Your task to perform on an android device: turn pop-ups on in chrome Image 0: 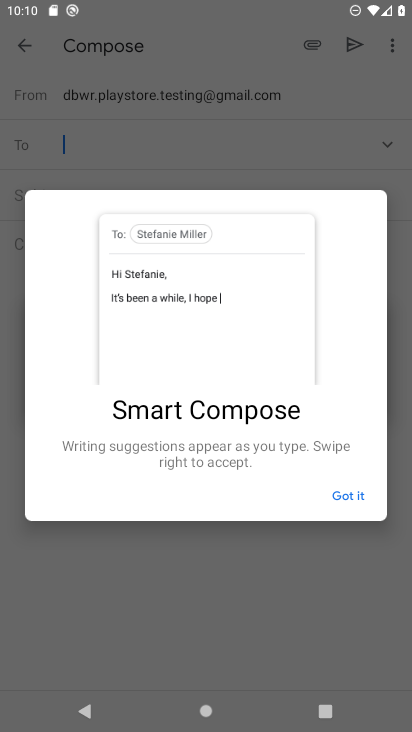
Step 0: press home button
Your task to perform on an android device: turn pop-ups on in chrome Image 1: 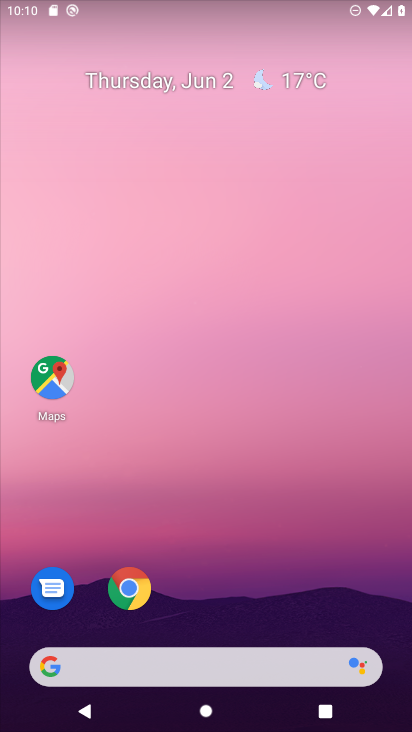
Step 1: drag from (213, 648) to (219, 298)
Your task to perform on an android device: turn pop-ups on in chrome Image 2: 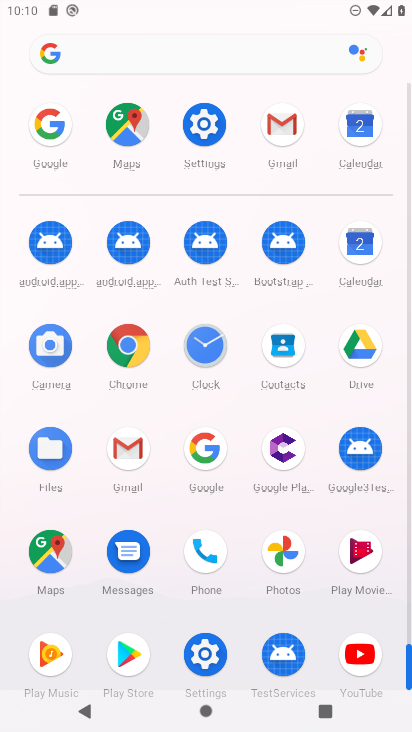
Step 2: click (128, 356)
Your task to perform on an android device: turn pop-ups on in chrome Image 3: 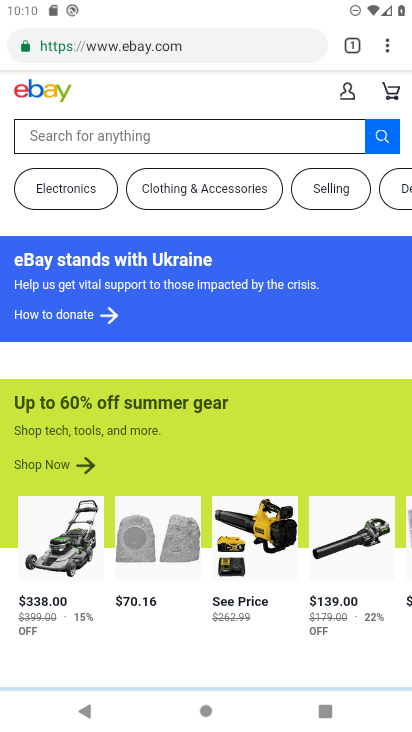
Step 3: click (381, 45)
Your task to perform on an android device: turn pop-ups on in chrome Image 4: 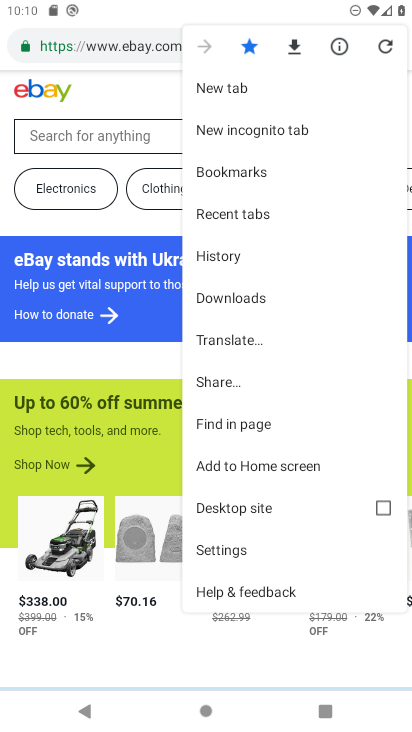
Step 4: drag from (287, 431) to (298, 355)
Your task to perform on an android device: turn pop-ups on in chrome Image 5: 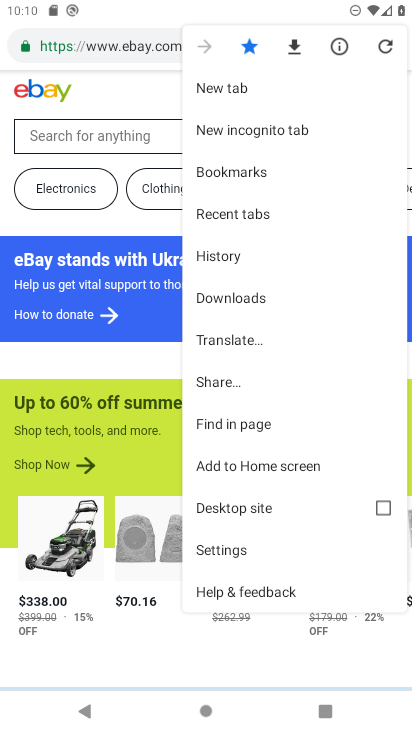
Step 5: click (257, 549)
Your task to perform on an android device: turn pop-ups on in chrome Image 6: 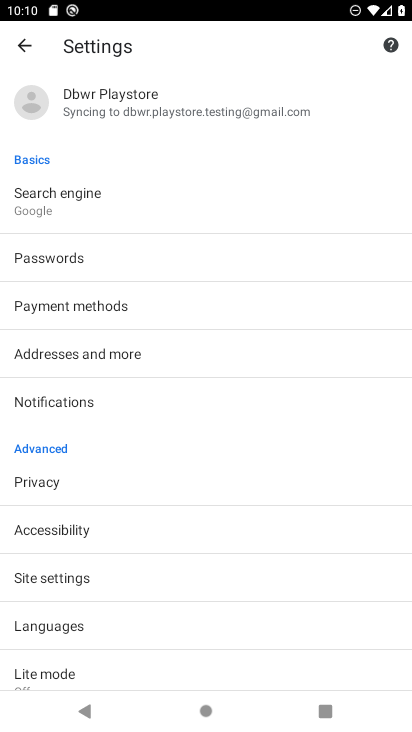
Step 6: drag from (154, 506) to (156, 455)
Your task to perform on an android device: turn pop-ups on in chrome Image 7: 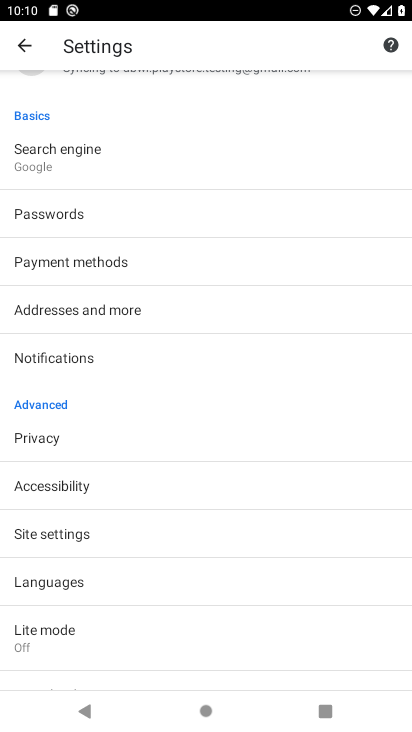
Step 7: click (109, 535)
Your task to perform on an android device: turn pop-ups on in chrome Image 8: 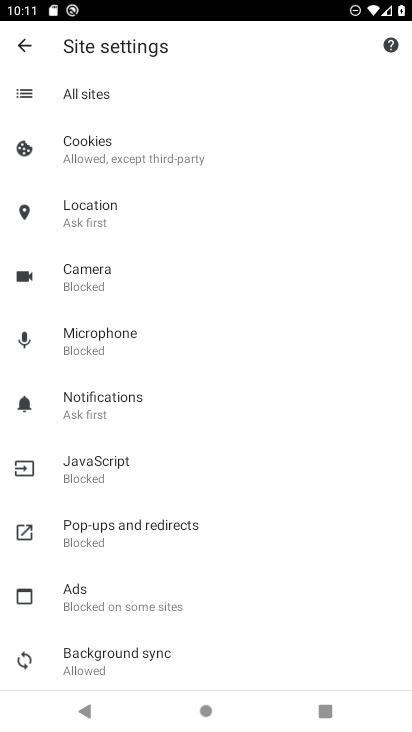
Step 8: click (150, 519)
Your task to perform on an android device: turn pop-ups on in chrome Image 9: 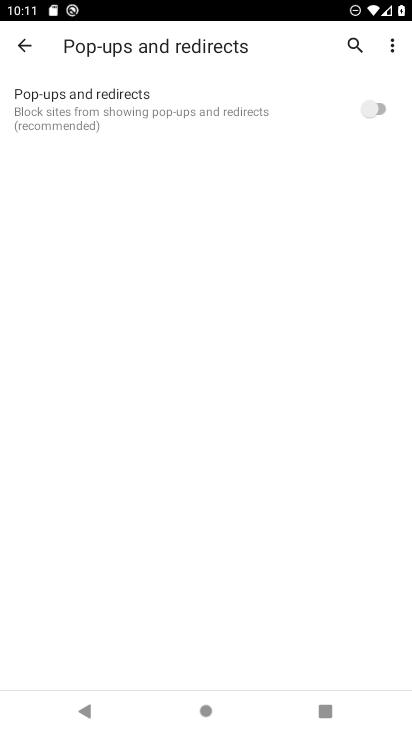
Step 9: click (386, 111)
Your task to perform on an android device: turn pop-ups on in chrome Image 10: 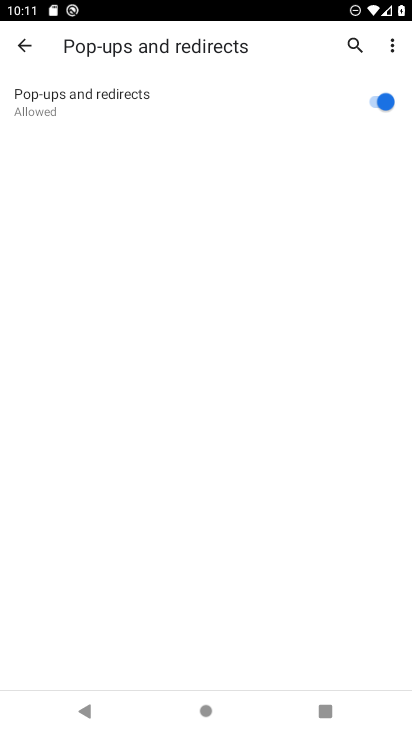
Step 10: task complete